Your task to perform on an android device: Open Google Image 0: 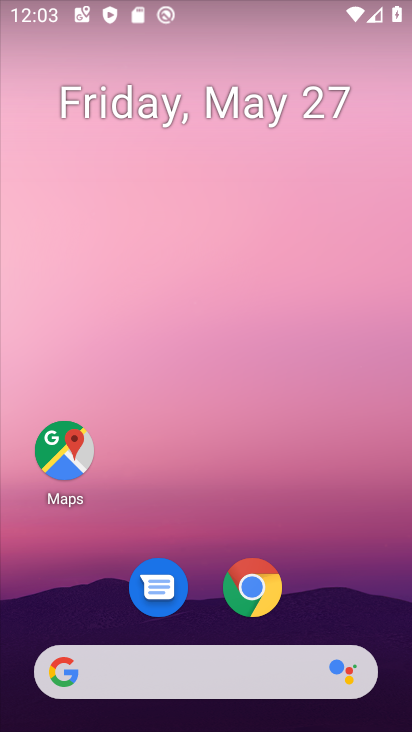
Step 0: drag from (153, 727) to (152, 86)
Your task to perform on an android device: Open Google Image 1: 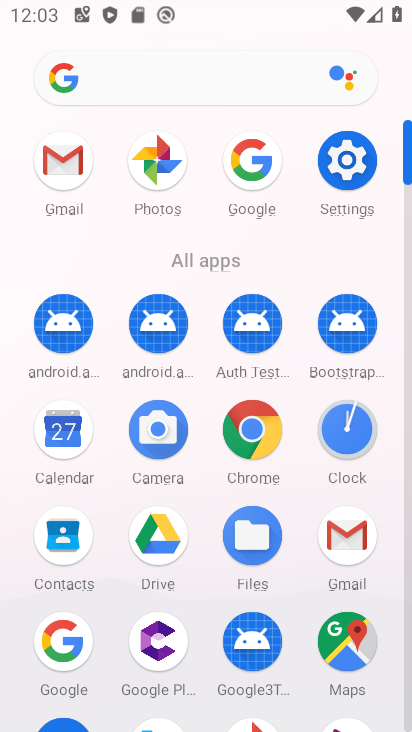
Step 1: click (255, 165)
Your task to perform on an android device: Open Google Image 2: 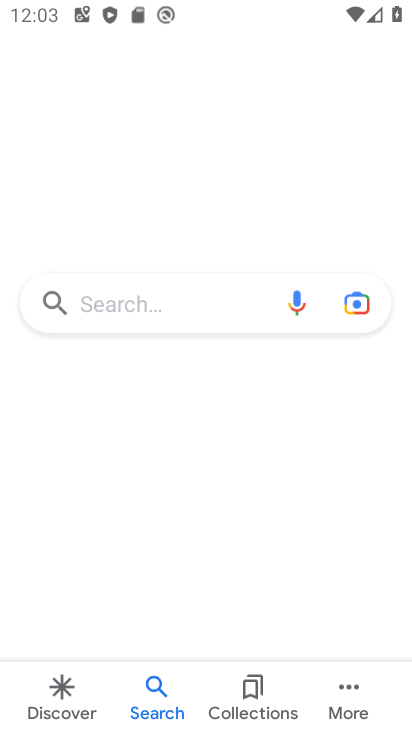
Step 2: task complete